Your task to perform on an android device: Do I have any events today? Image 0: 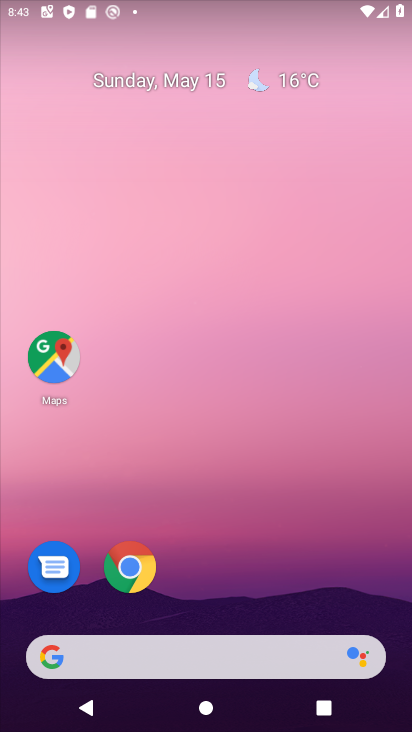
Step 0: drag from (237, 645) to (166, 35)
Your task to perform on an android device: Do I have any events today? Image 1: 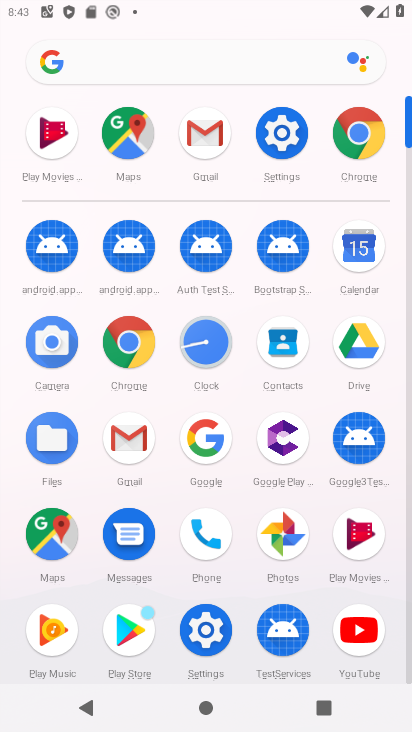
Step 1: click (366, 241)
Your task to perform on an android device: Do I have any events today? Image 2: 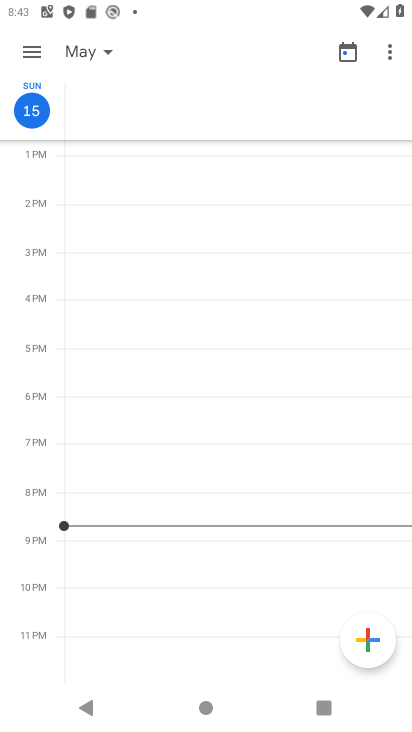
Step 2: click (41, 49)
Your task to perform on an android device: Do I have any events today? Image 3: 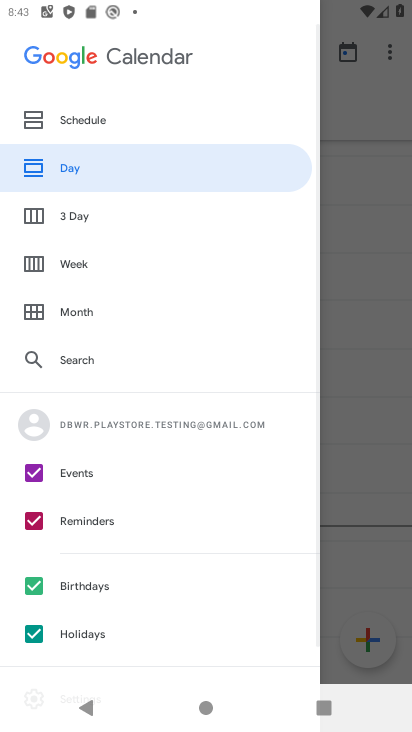
Step 3: click (97, 116)
Your task to perform on an android device: Do I have any events today? Image 4: 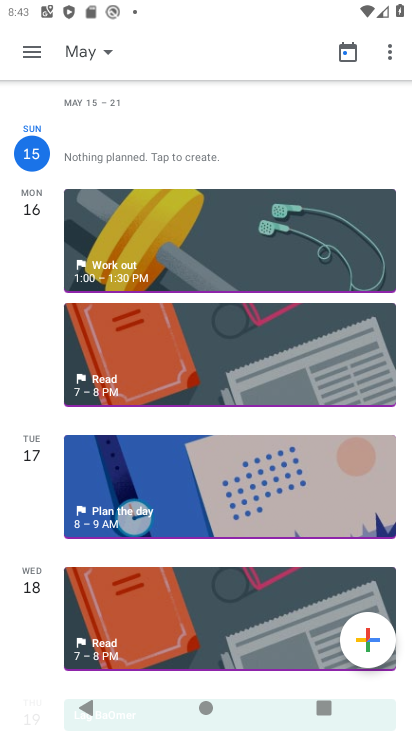
Step 4: task complete